Your task to perform on an android device: Open wifi settings Image 0: 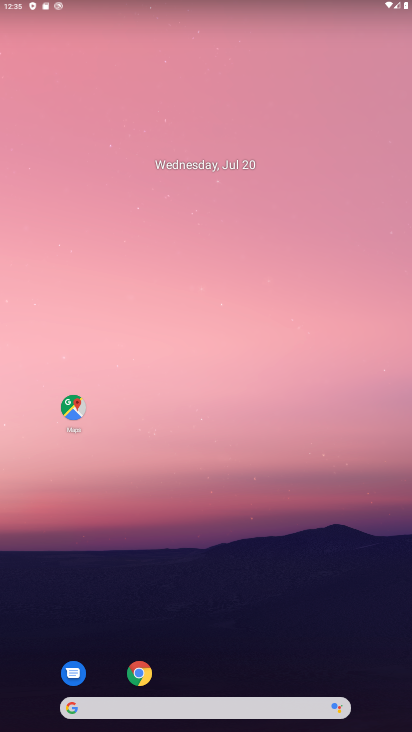
Step 0: drag from (244, 1) to (265, 638)
Your task to perform on an android device: Open wifi settings Image 1: 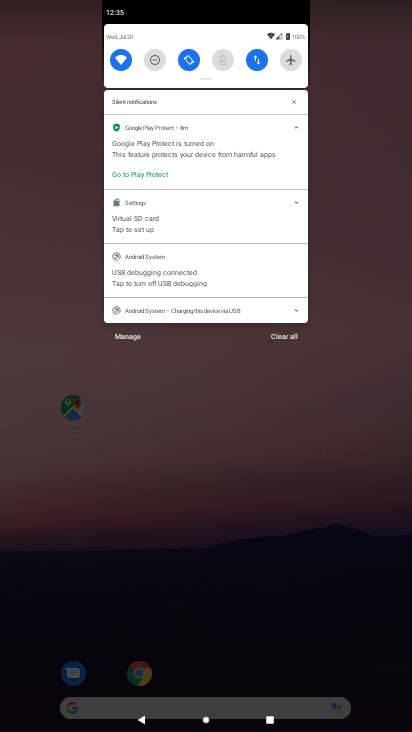
Step 1: click (124, 62)
Your task to perform on an android device: Open wifi settings Image 2: 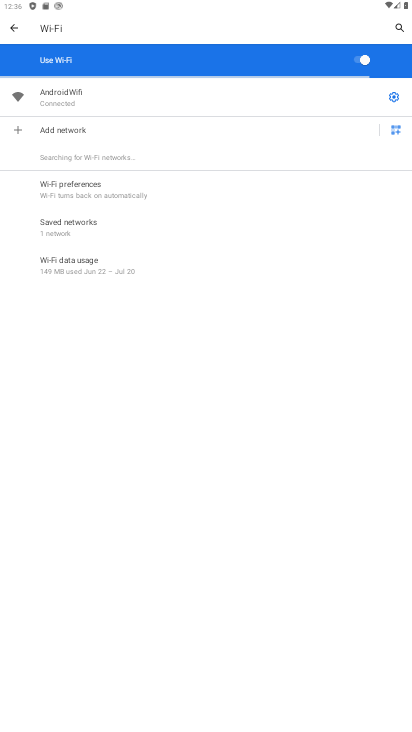
Step 2: task complete